Your task to perform on an android device: clear history in the chrome app Image 0: 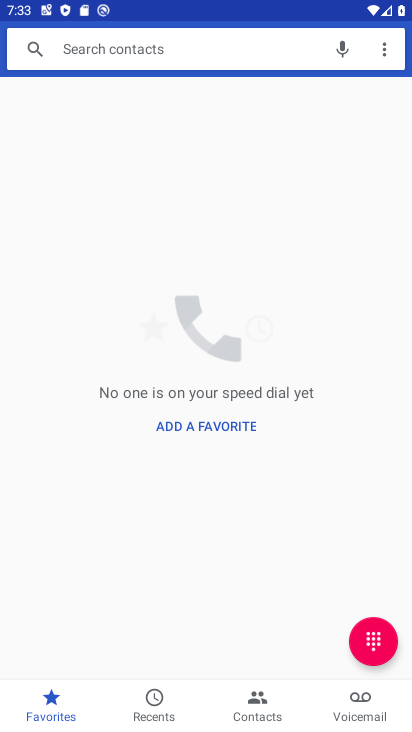
Step 0: press home button
Your task to perform on an android device: clear history in the chrome app Image 1: 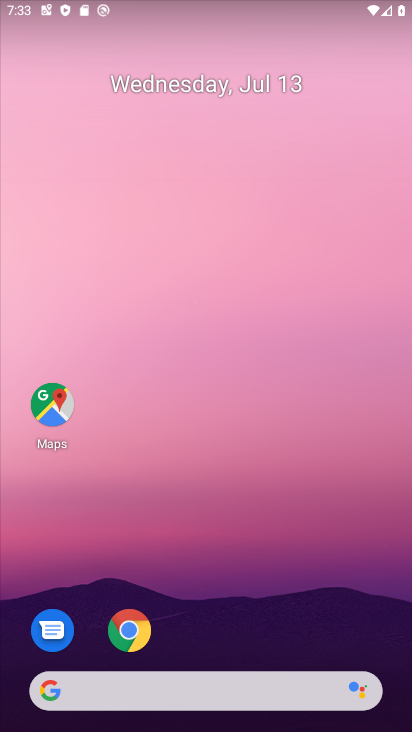
Step 1: drag from (381, 626) to (397, 41)
Your task to perform on an android device: clear history in the chrome app Image 2: 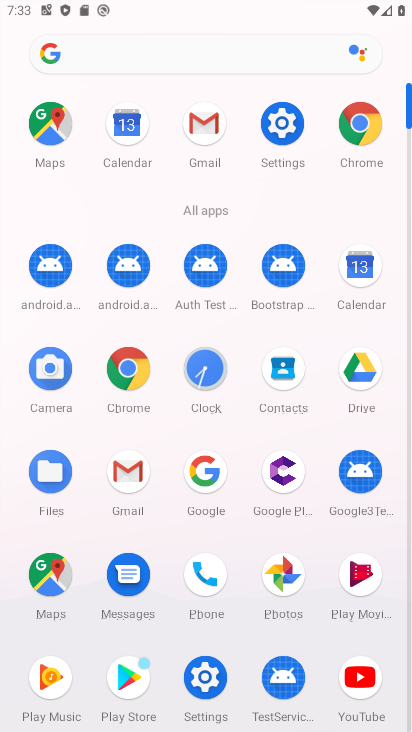
Step 2: click (134, 365)
Your task to perform on an android device: clear history in the chrome app Image 3: 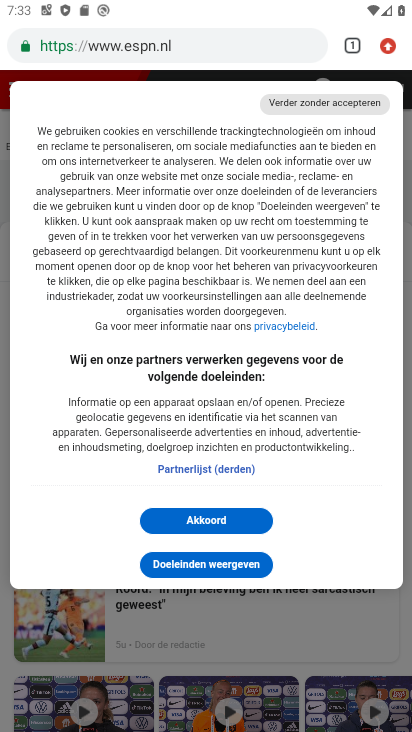
Step 3: click (386, 43)
Your task to perform on an android device: clear history in the chrome app Image 4: 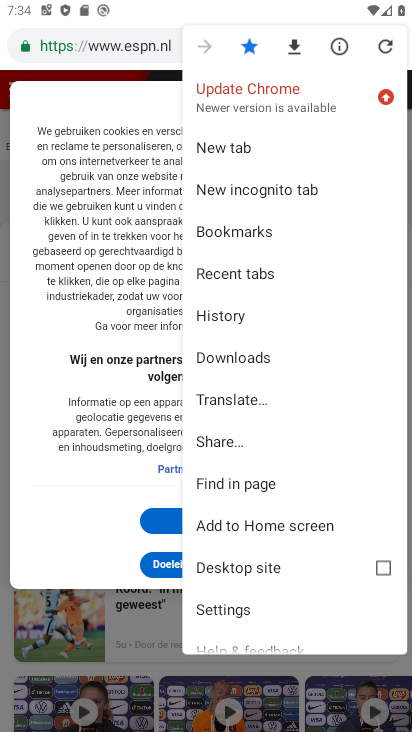
Step 4: click (250, 321)
Your task to perform on an android device: clear history in the chrome app Image 5: 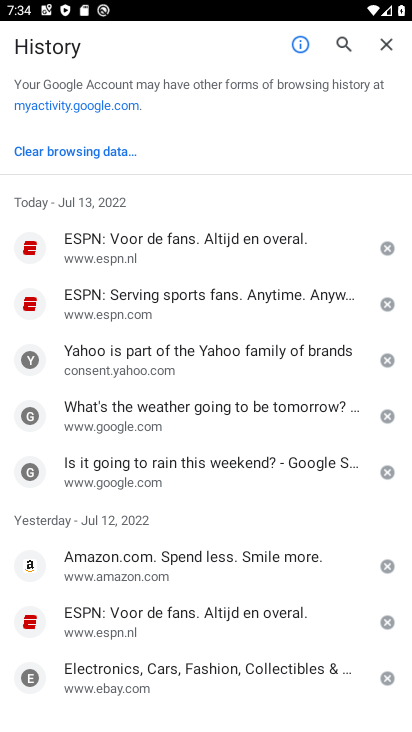
Step 5: click (122, 155)
Your task to perform on an android device: clear history in the chrome app Image 6: 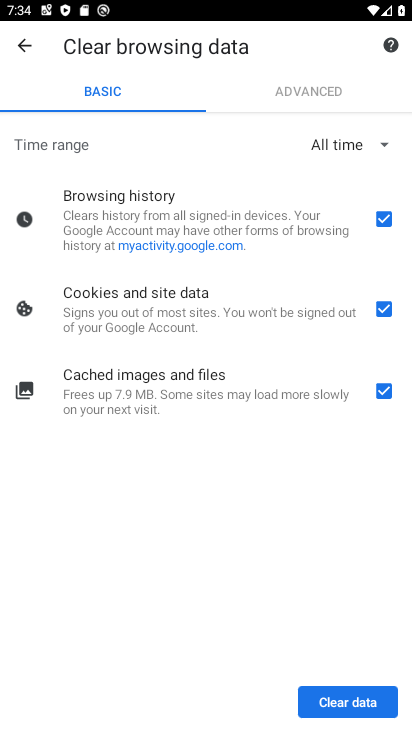
Step 6: click (347, 700)
Your task to perform on an android device: clear history in the chrome app Image 7: 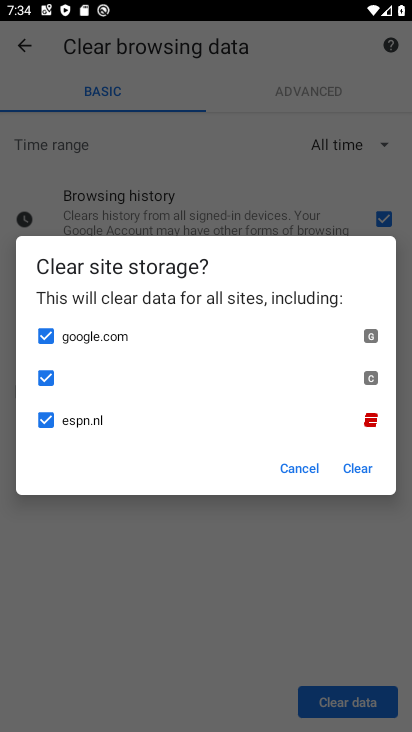
Step 7: click (354, 473)
Your task to perform on an android device: clear history in the chrome app Image 8: 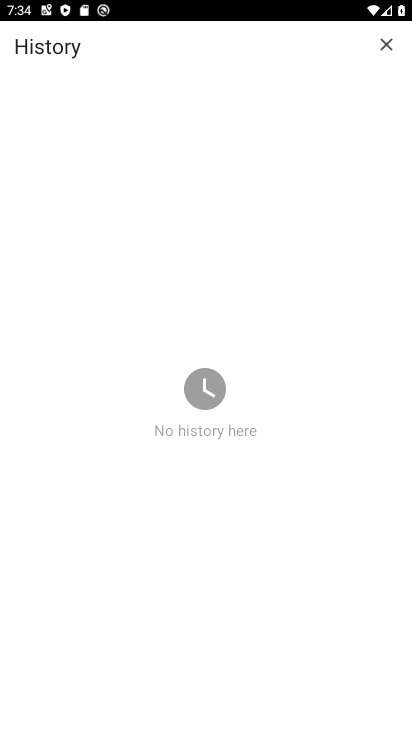
Step 8: task complete